Your task to perform on an android device: turn off translation in the chrome app Image 0: 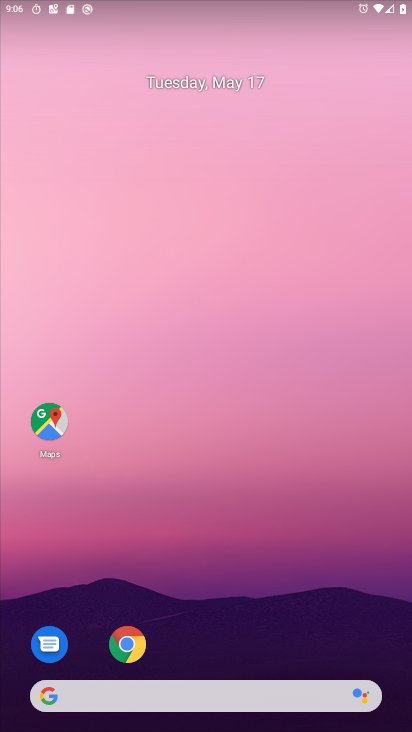
Step 0: click (127, 642)
Your task to perform on an android device: turn off translation in the chrome app Image 1: 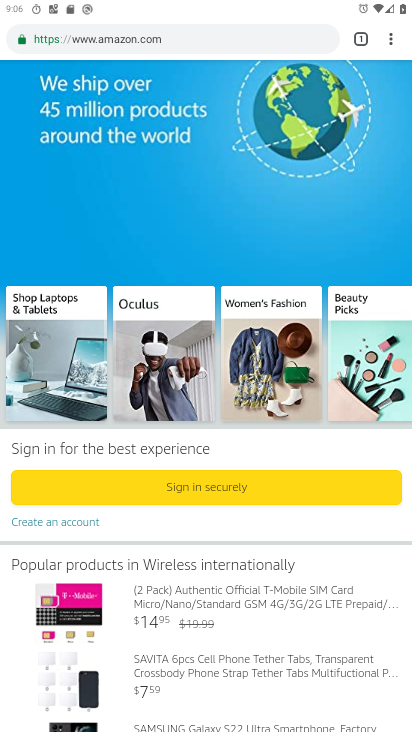
Step 1: click (388, 34)
Your task to perform on an android device: turn off translation in the chrome app Image 2: 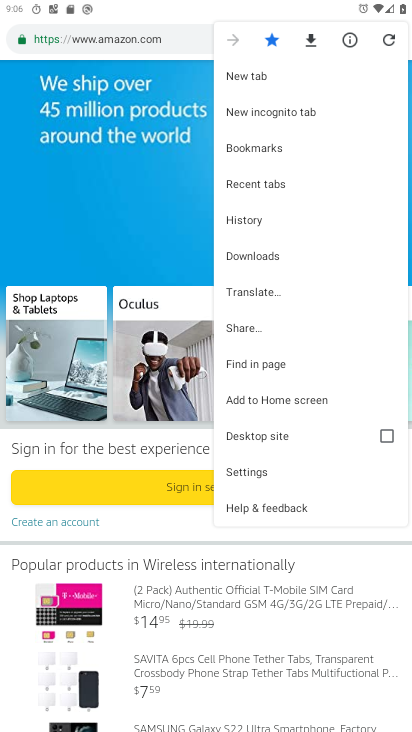
Step 2: click (275, 469)
Your task to perform on an android device: turn off translation in the chrome app Image 3: 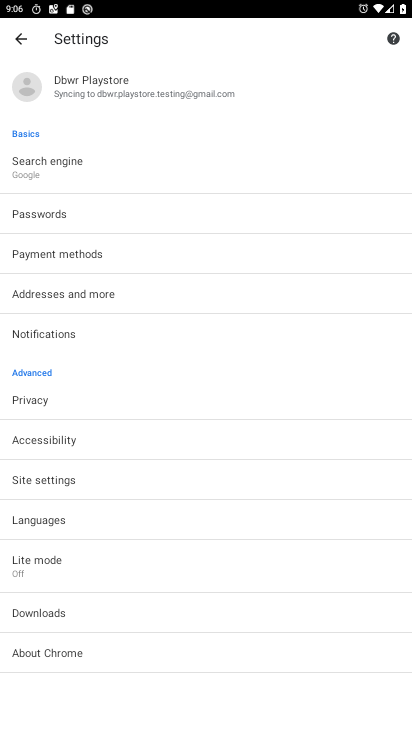
Step 3: click (74, 515)
Your task to perform on an android device: turn off translation in the chrome app Image 4: 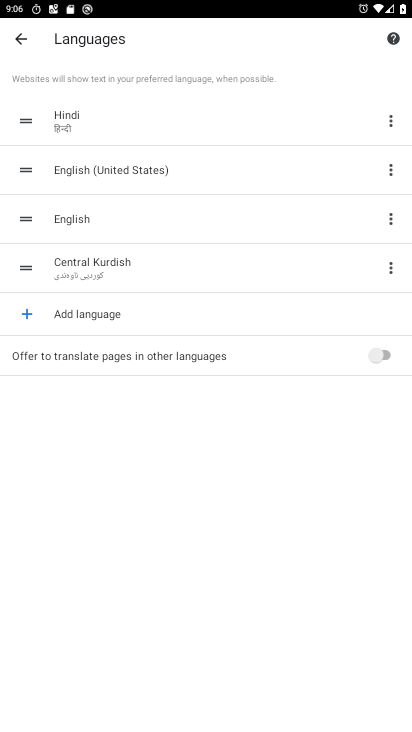
Step 4: click (387, 351)
Your task to perform on an android device: turn off translation in the chrome app Image 5: 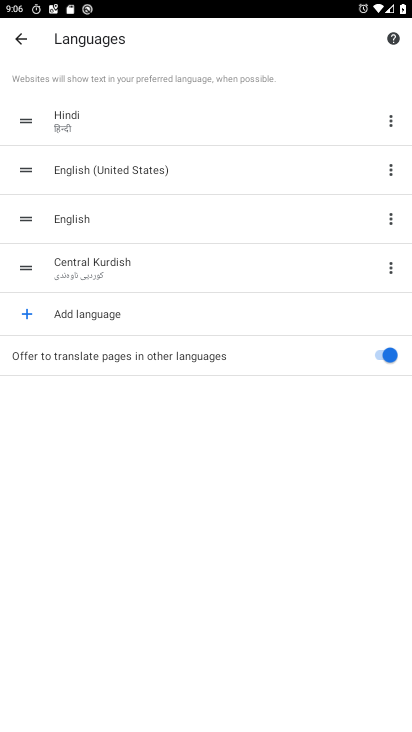
Step 5: task complete